Your task to perform on an android device: check google app version Image 0: 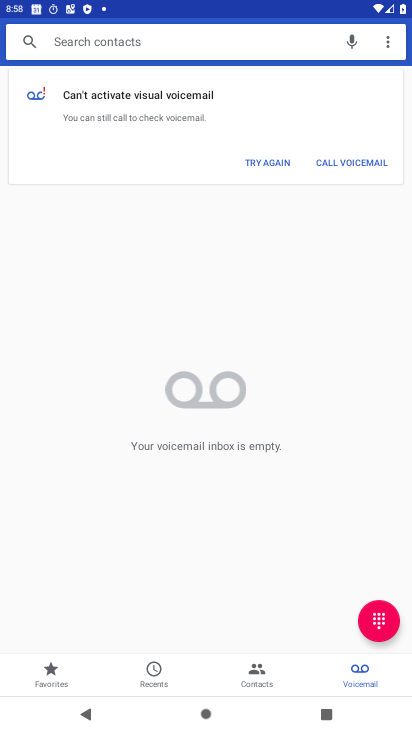
Step 0: press home button
Your task to perform on an android device: check google app version Image 1: 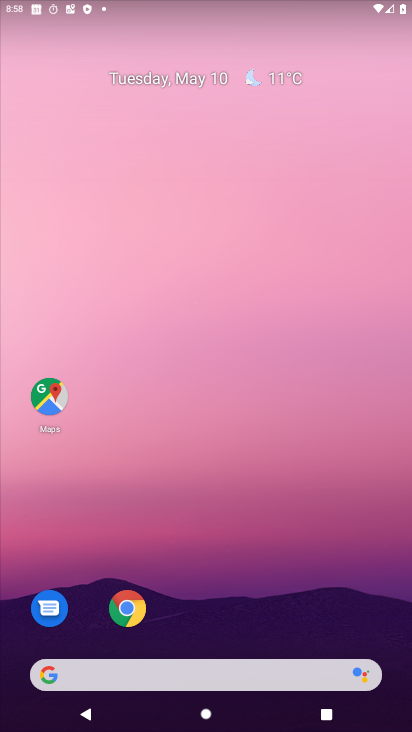
Step 1: drag from (208, 674) to (150, 45)
Your task to perform on an android device: check google app version Image 2: 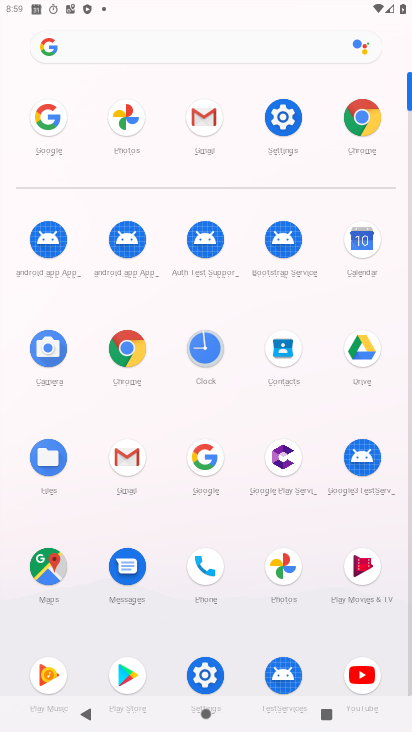
Step 2: click (293, 576)
Your task to perform on an android device: check google app version Image 3: 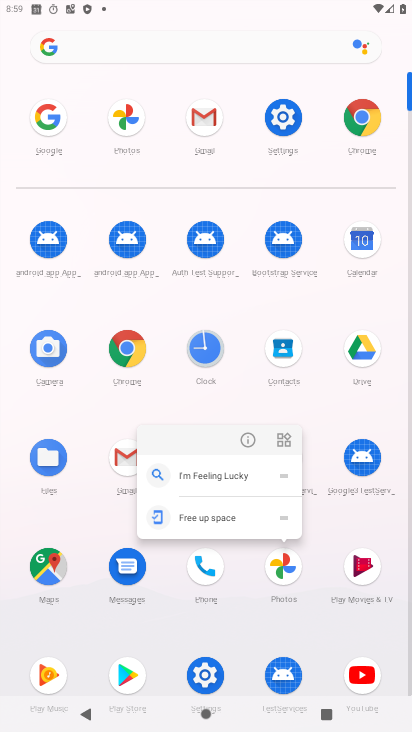
Step 3: click (245, 441)
Your task to perform on an android device: check google app version Image 4: 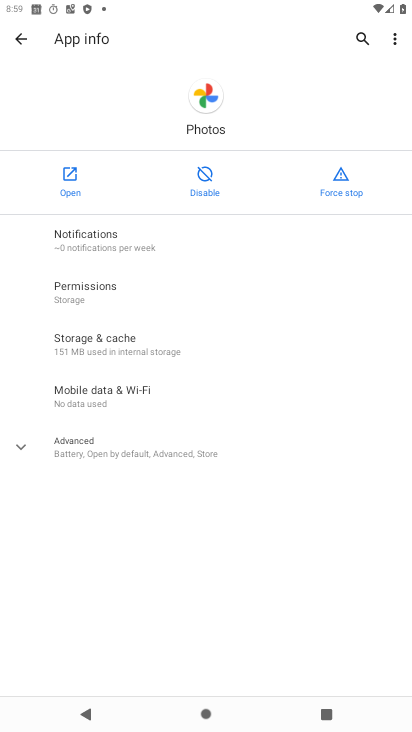
Step 4: click (161, 457)
Your task to perform on an android device: check google app version Image 5: 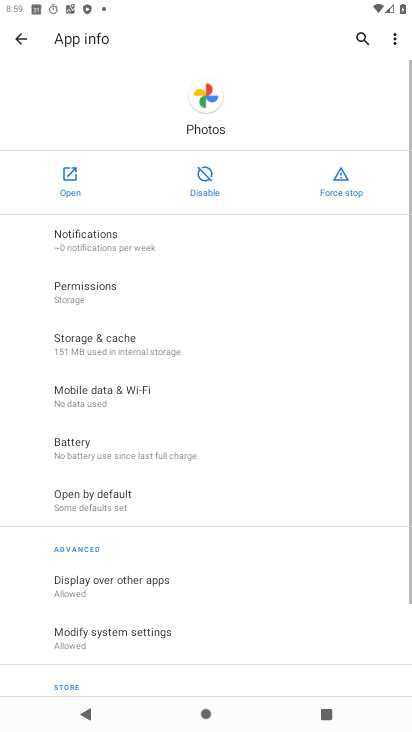
Step 5: drag from (220, 596) to (194, 215)
Your task to perform on an android device: check google app version Image 6: 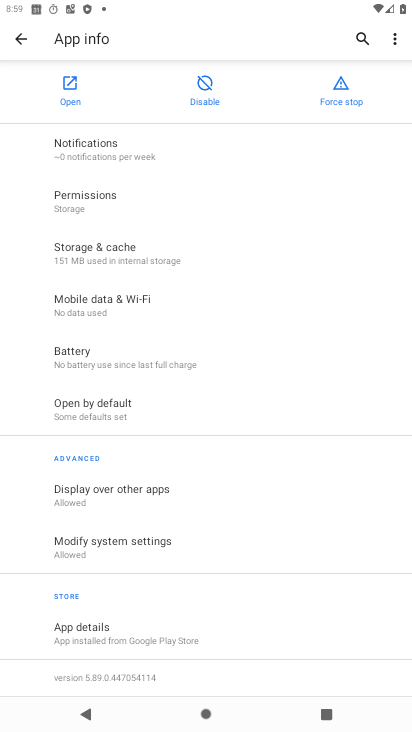
Step 6: drag from (222, 504) to (225, 58)
Your task to perform on an android device: check google app version Image 7: 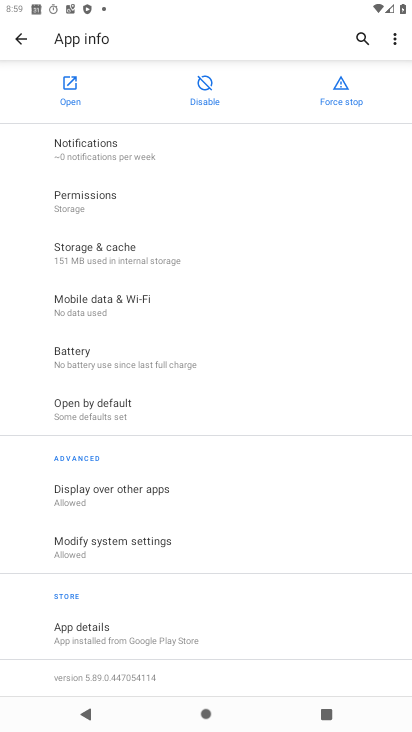
Step 7: press home button
Your task to perform on an android device: check google app version Image 8: 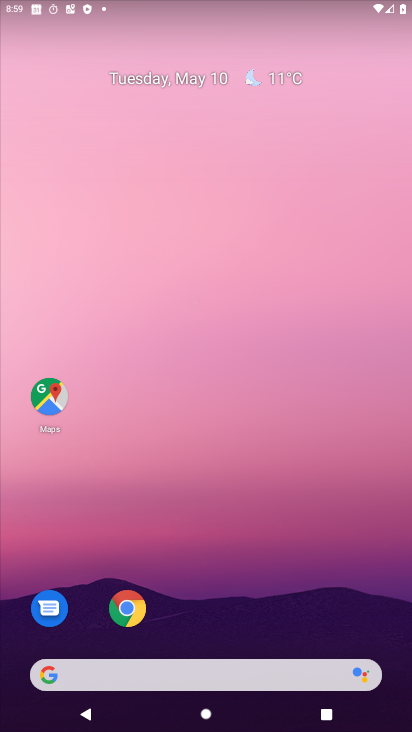
Step 8: drag from (169, 670) to (105, 31)
Your task to perform on an android device: check google app version Image 9: 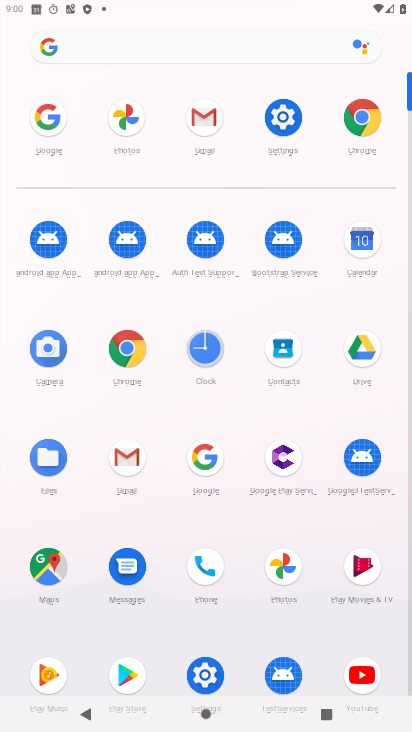
Step 9: click (208, 470)
Your task to perform on an android device: check google app version Image 10: 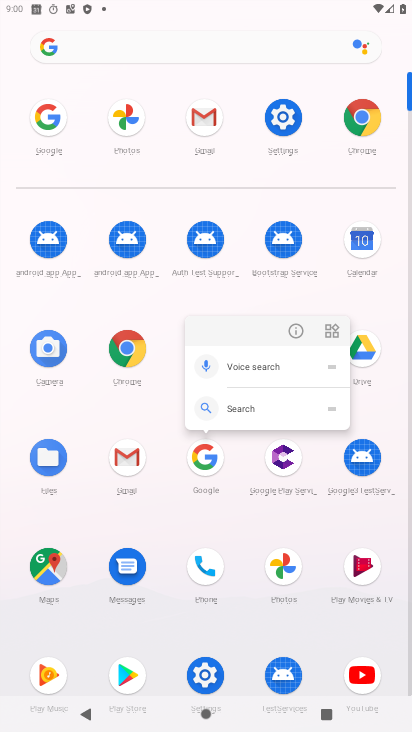
Step 10: click (299, 333)
Your task to perform on an android device: check google app version Image 11: 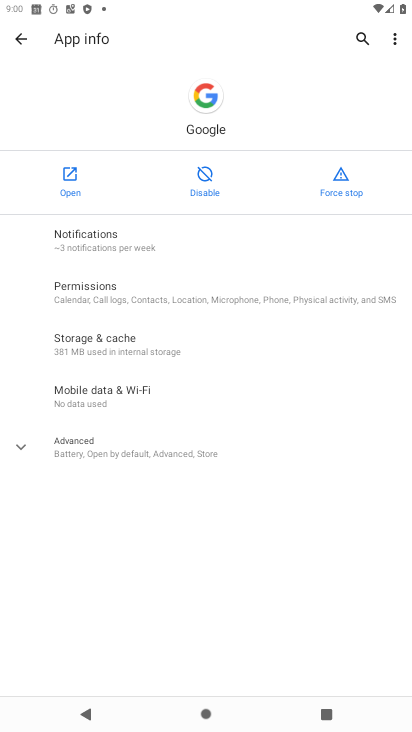
Step 11: click (137, 439)
Your task to perform on an android device: check google app version Image 12: 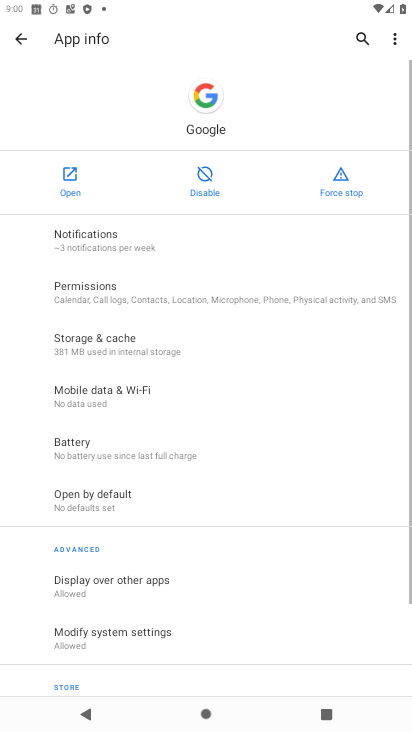
Step 12: task complete